Your task to perform on an android device: Open the Play Movies app and select the watchlist tab. Image 0: 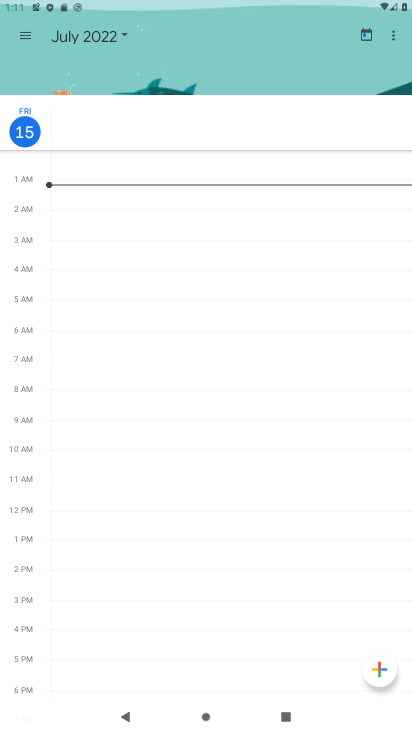
Step 0: press home button
Your task to perform on an android device: Open the Play Movies app and select the watchlist tab. Image 1: 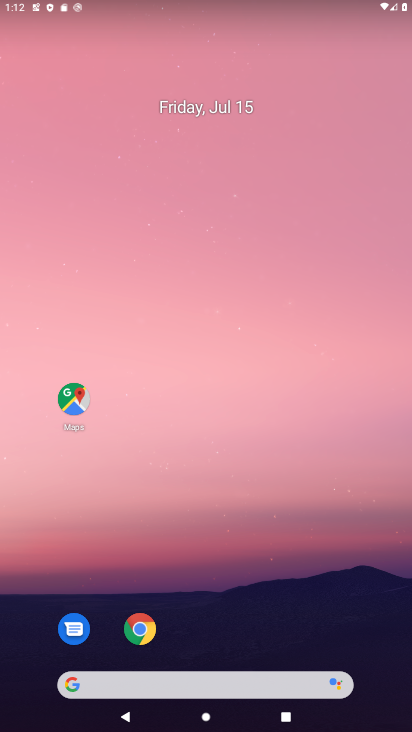
Step 1: drag from (256, 556) to (248, 30)
Your task to perform on an android device: Open the Play Movies app and select the watchlist tab. Image 2: 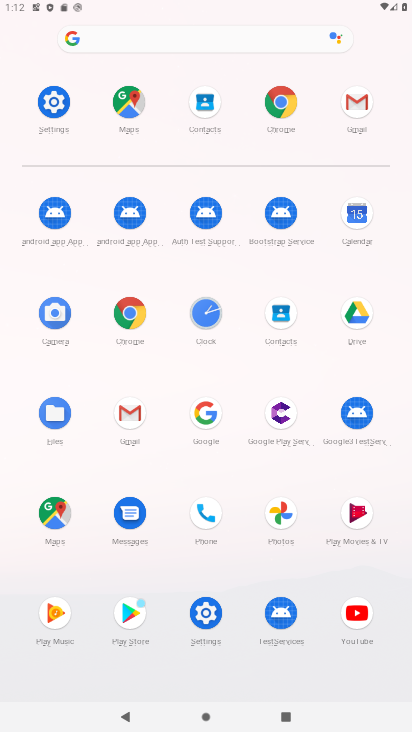
Step 2: click (362, 515)
Your task to perform on an android device: Open the Play Movies app and select the watchlist tab. Image 3: 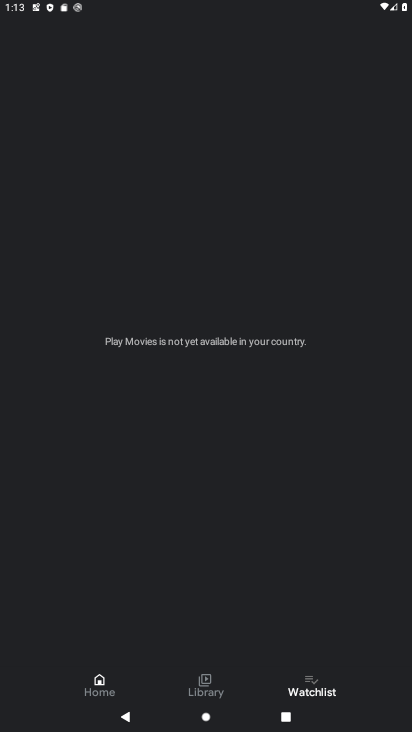
Step 3: task complete